Your task to perform on an android device: clear history in the chrome app Image 0: 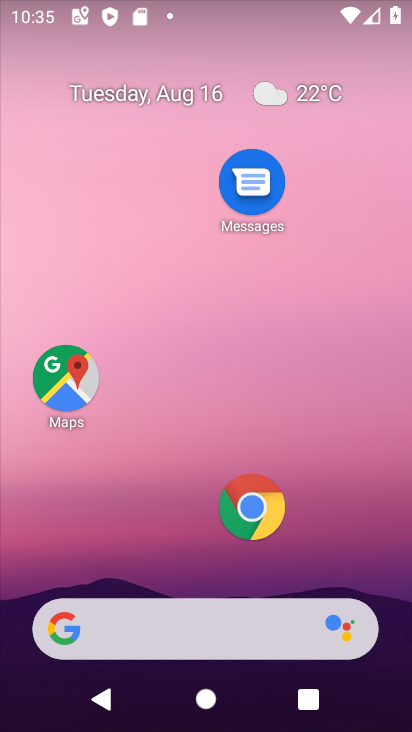
Step 0: click (257, 508)
Your task to perform on an android device: clear history in the chrome app Image 1: 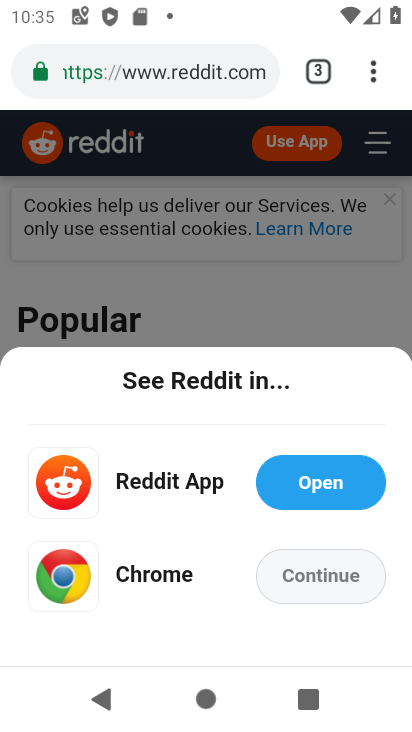
Step 1: drag from (381, 73) to (131, 405)
Your task to perform on an android device: clear history in the chrome app Image 2: 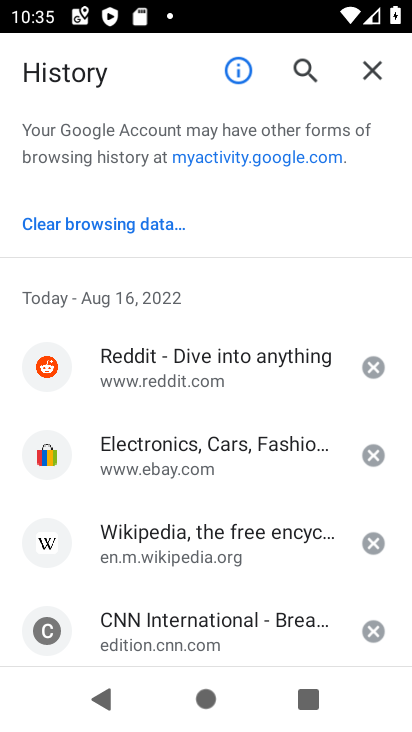
Step 2: click (104, 227)
Your task to perform on an android device: clear history in the chrome app Image 3: 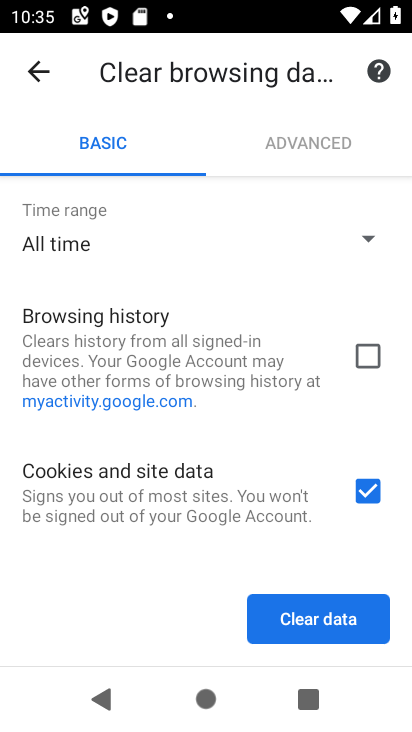
Step 3: click (346, 344)
Your task to perform on an android device: clear history in the chrome app Image 4: 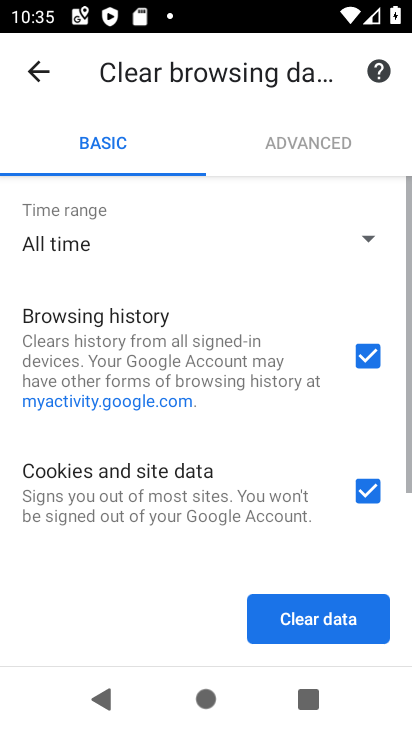
Step 4: drag from (312, 460) to (362, 138)
Your task to perform on an android device: clear history in the chrome app Image 5: 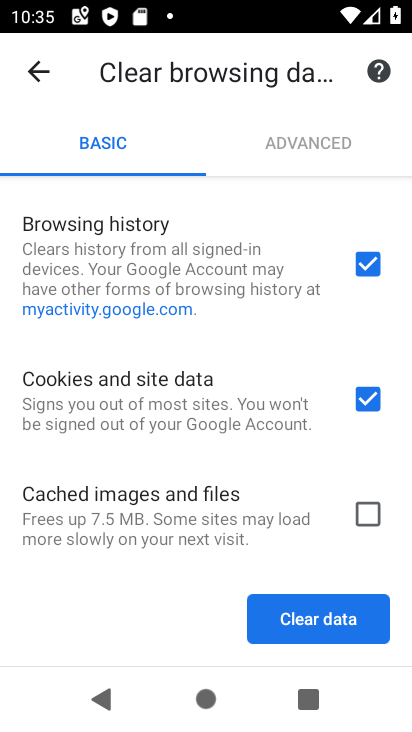
Step 5: click (357, 516)
Your task to perform on an android device: clear history in the chrome app Image 6: 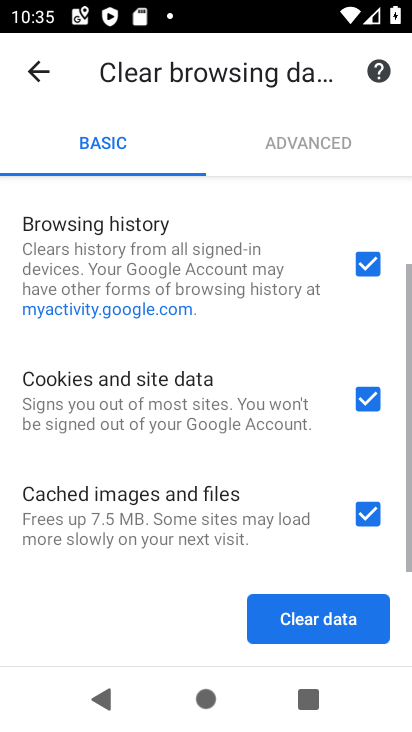
Step 6: click (281, 594)
Your task to perform on an android device: clear history in the chrome app Image 7: 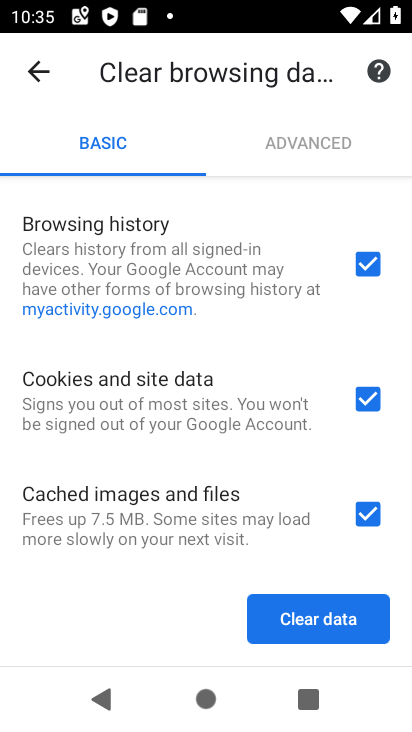
Step 7: click (327, 612)
Your task to perform on an android device: clear history in the chrome app Image 8: 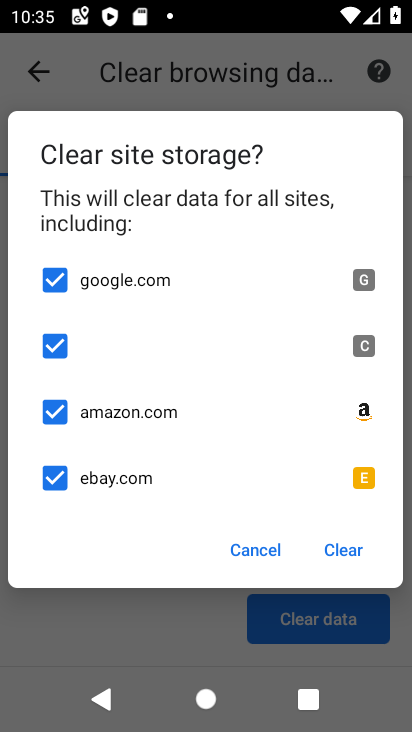
Step 8: click (336, 537)
Your task to perform on an android device: clear history in the chrome app Image 9: 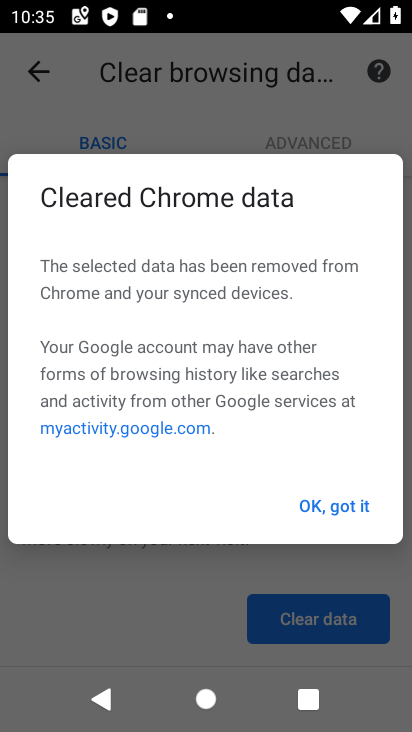
Step 9: click (326, 511)
Your task to perform on an android device: clear history in the chrome app Image 10: 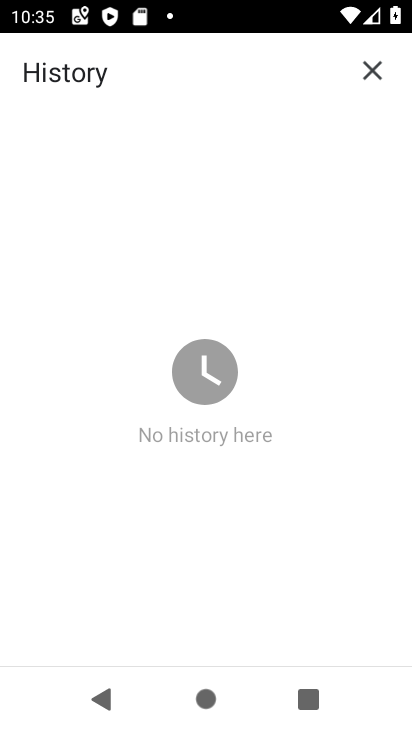
Step 10: task complete